Your task to perform on an android device: set an alarm Image 0: 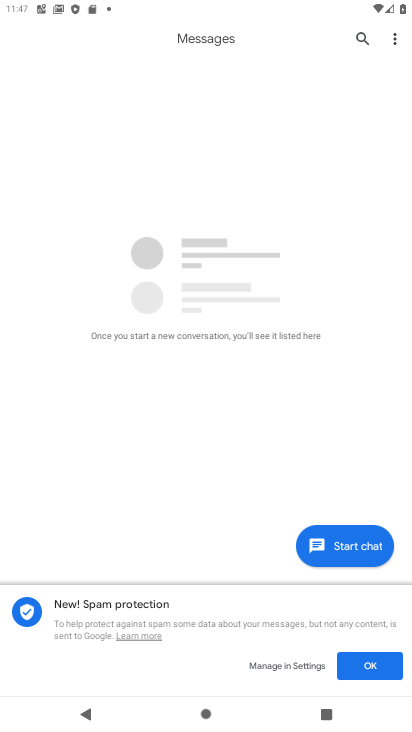
Step 0: press home button
Your task to perform on an android device: set an alarm Image 1: 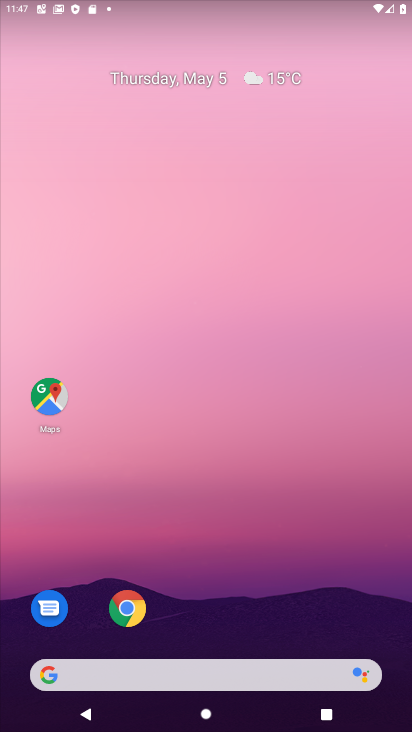
Step 1: drag from (228, 394) to (259, 185)
Your task to perform on an android device: set an alarm Image 2: 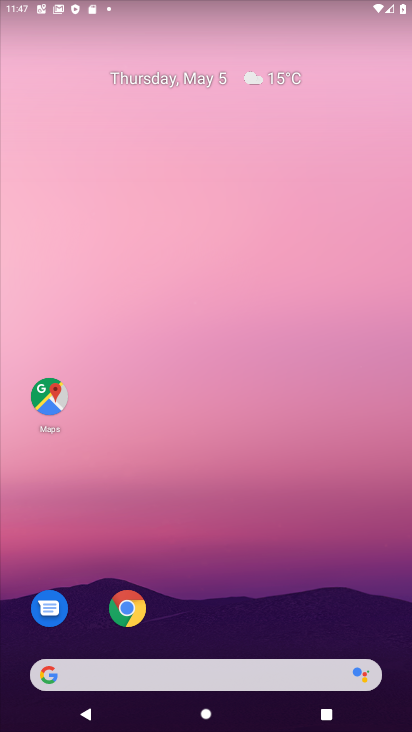
Step 2: drag from (249, 543) to (320, 145)
Your task to perform on an android device: set an alarm Image 3: 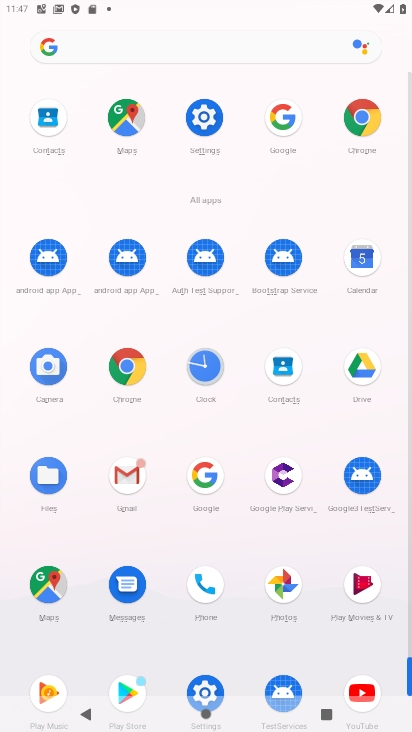
Step 3: click (190, 378)
Your task to perform on an android device: set an alarm Image 4: 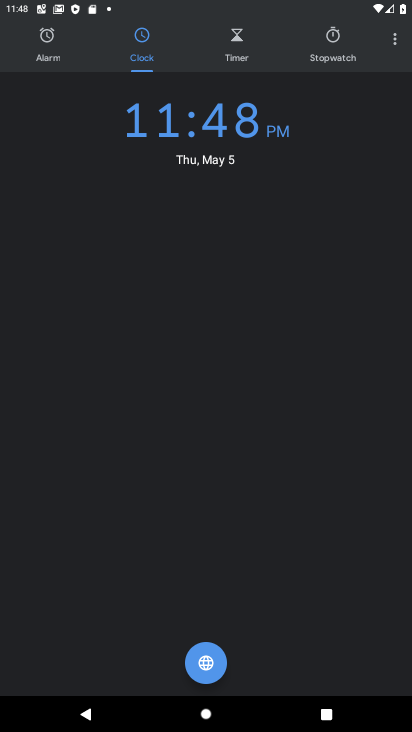
Step 4: click (53, 51)
Your task to perform on an android device: set an alarm Image 5: 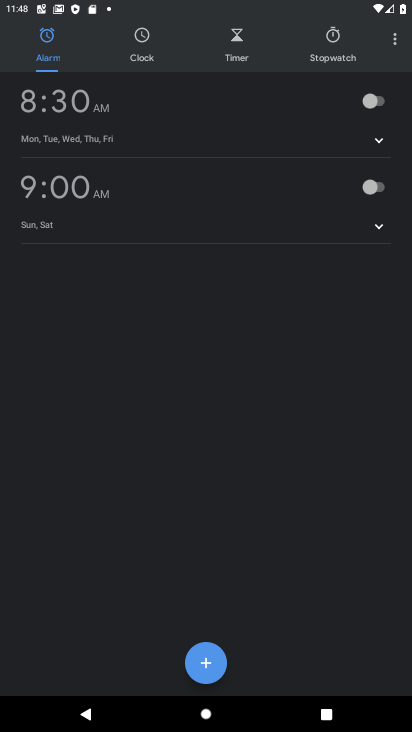
Step 5: click (206, 672)
Your task to perform on an android device: set an alarm Image 6: 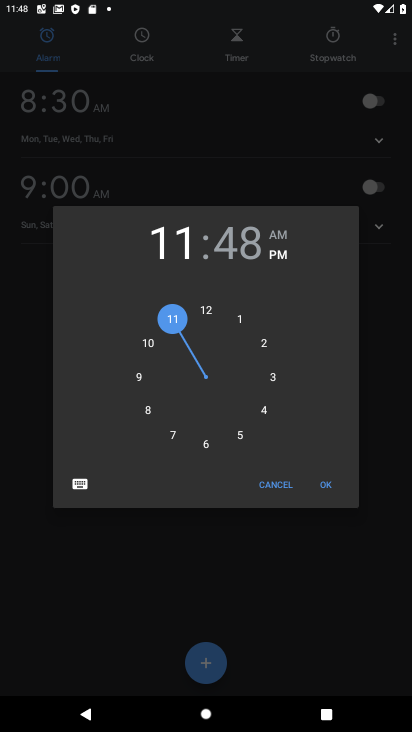
Step 6: click (333, 492)
Your task to perform on an android device: set an alarm Image 7: 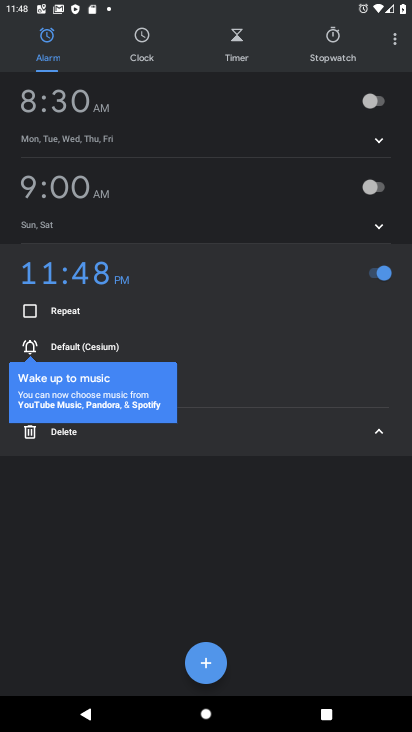
Step 7: task complete